Your task to perform on an android device: Open accessibility settings Image 0: 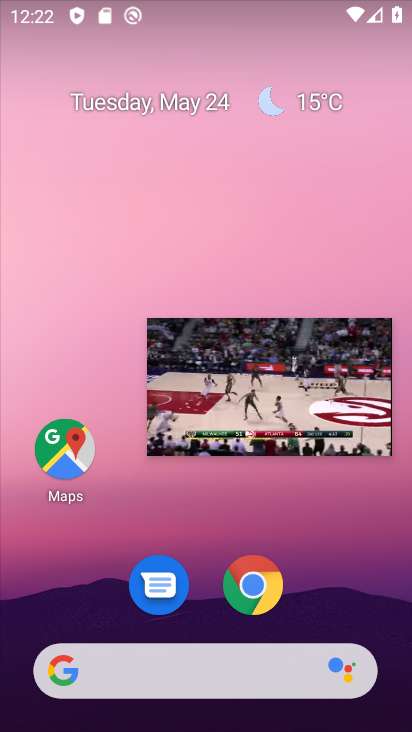
Step 0: drag from (112, 519) to (142, 106)
Your task to perform on an android device: Open accessibility settings Image 1: 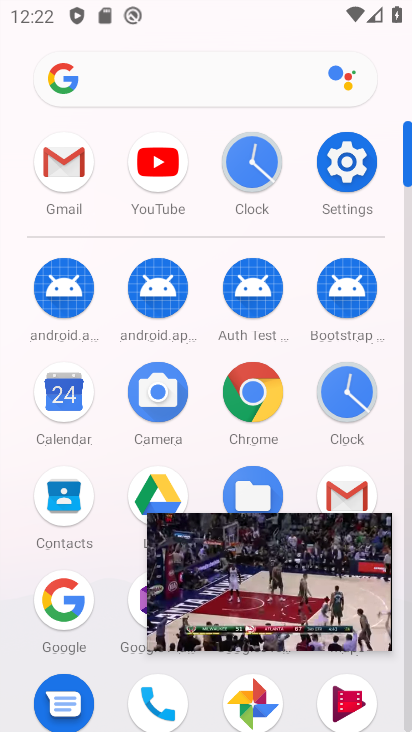
Step 1: click (336, 158)
Your task to perform on an android device: Open accessibility settings Image 2: 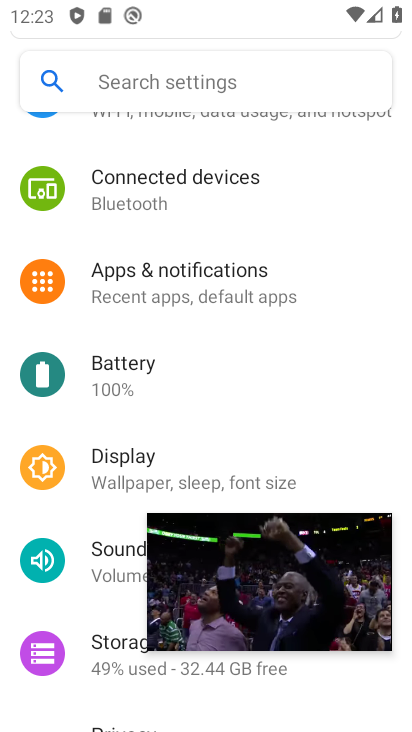
Step 2: drag from (103, 513) to (167, 111)
Your task to perform on an android device: Open accessibility settings Image 3: 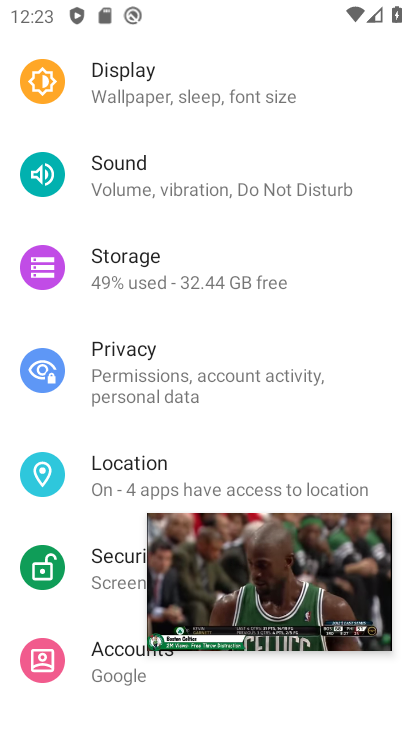
Step 3: drag from (109, 509) to (152, 184)
Your task to perform on an android device: Open accessibility settings Image 4: 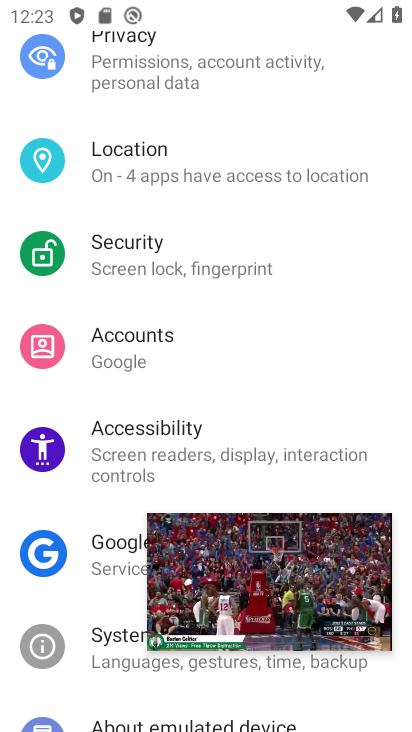
Step 4: click (186, 436)
Your task to perform on an android device: Open accessibility settings Image 5: 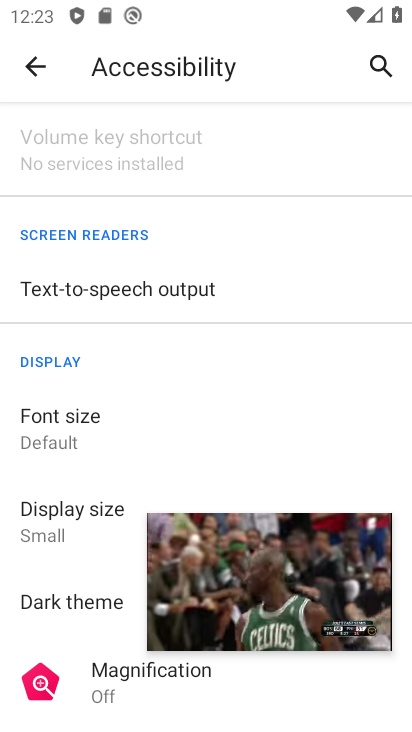
Step 5: task complete